Your task to perform on an android device: Show me popular videos on Youtube Image 0: 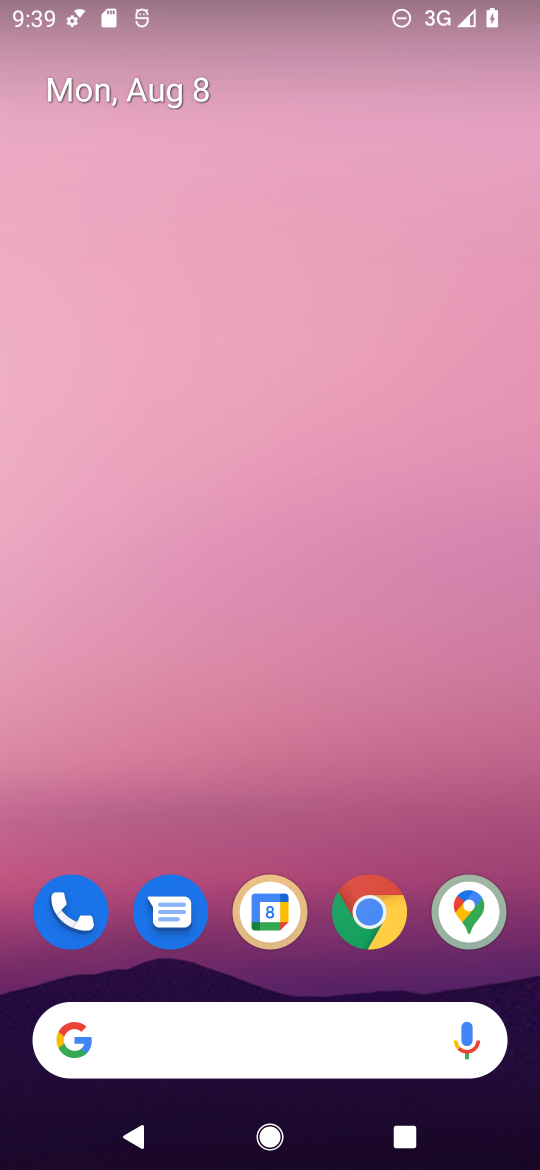
Step 0: drag from (516, 949) to (309, 15)
Your task to perform on an android device: Show me popular videos on Youtube Image 1: 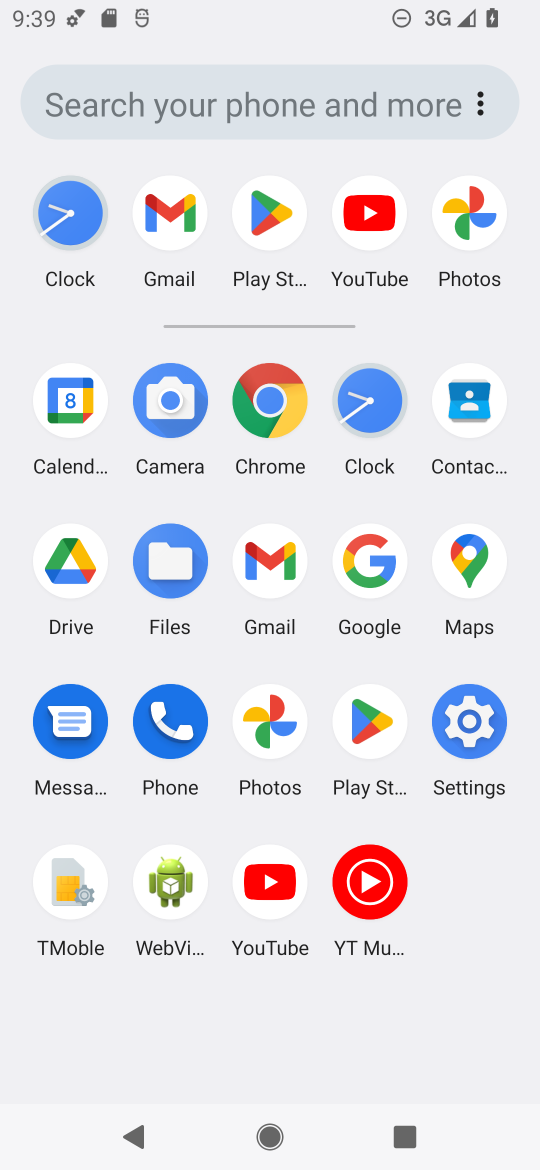
Step 1: click (286, 880)
Your task to perform on an android device: Show me popular videos on Youtube Image 2: 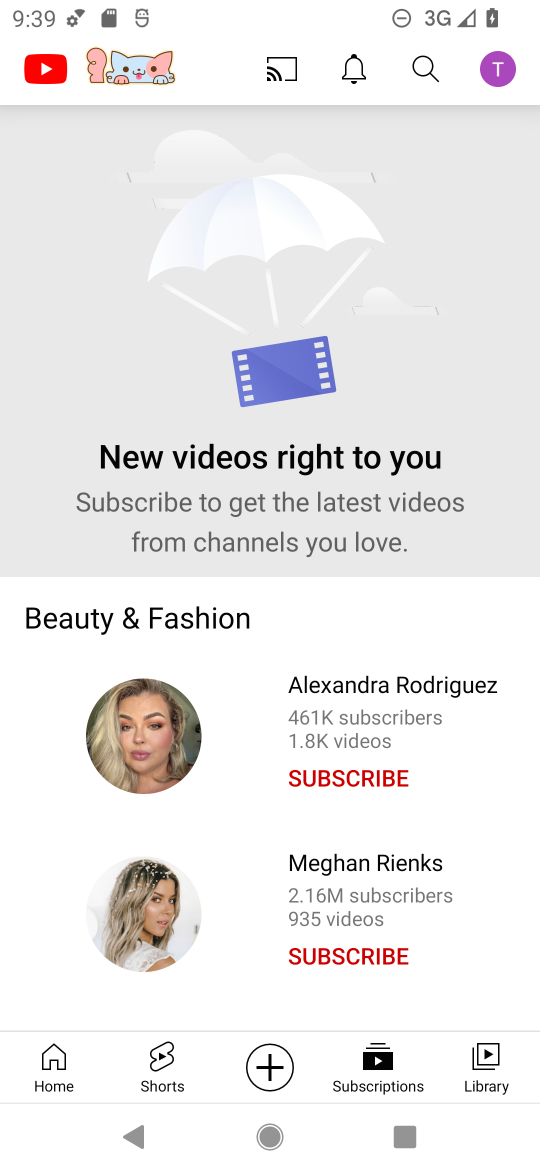
Step 2: click (509, 65)
Your task to perform on an android device: Show me popular videos on Youtube Image 3: 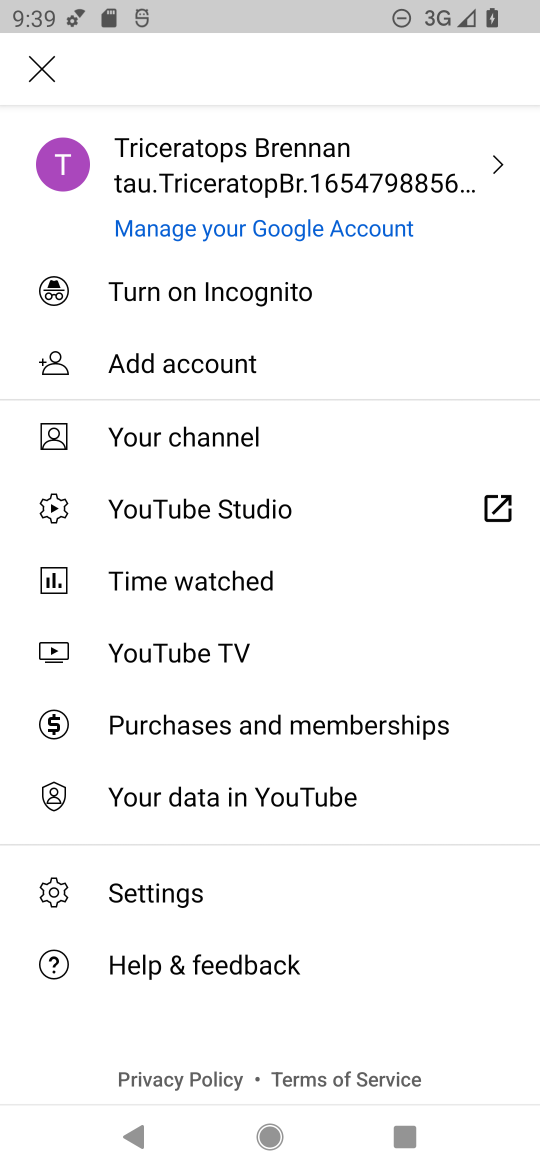
Step 3: click (151, 423)
Your task to perform on an android device: Show me popular videos on Youtube Image 4: 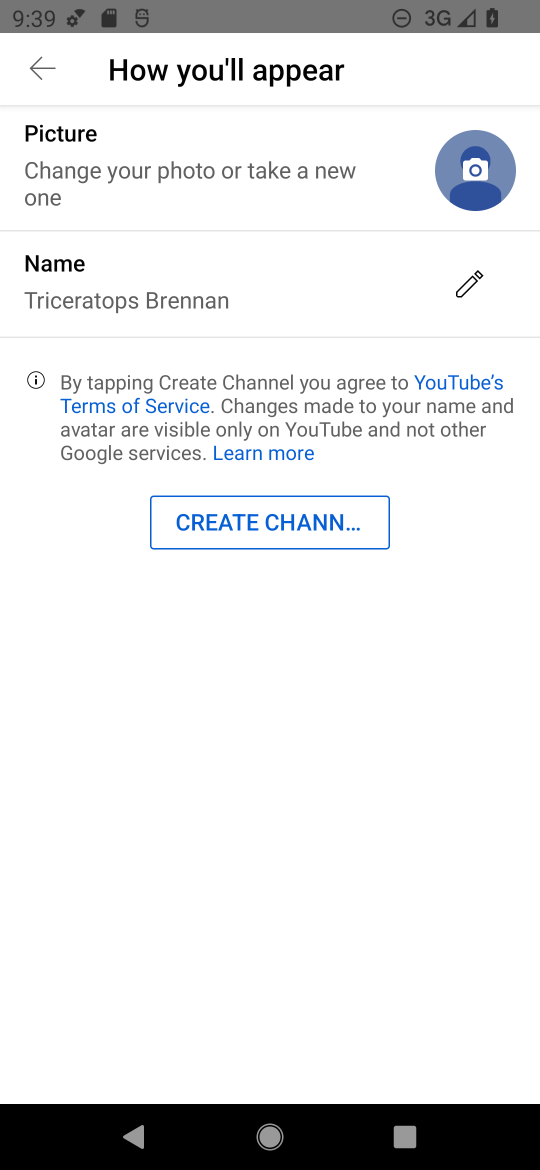
Step 4: task complete